Your task to perform on an android device: Search for razer blackwidow on ebay, select the first entry, and add it to the cart. Image 0: 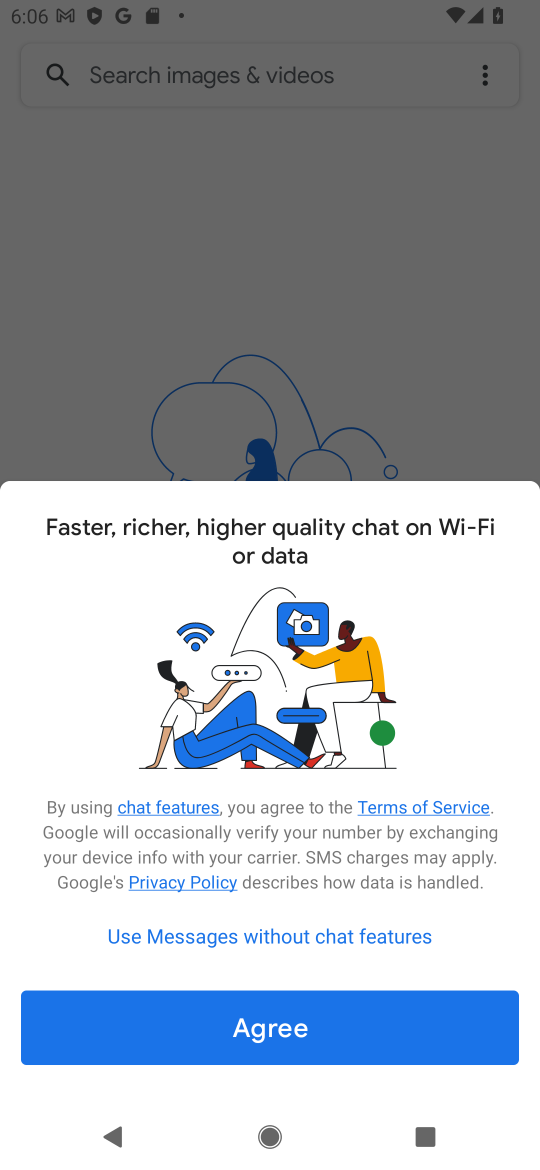
Step 0: press home button
Your task to perform on an android device: Search for razer blackwidow on ebay, select the first entry, and add it to the cart. Image 1: 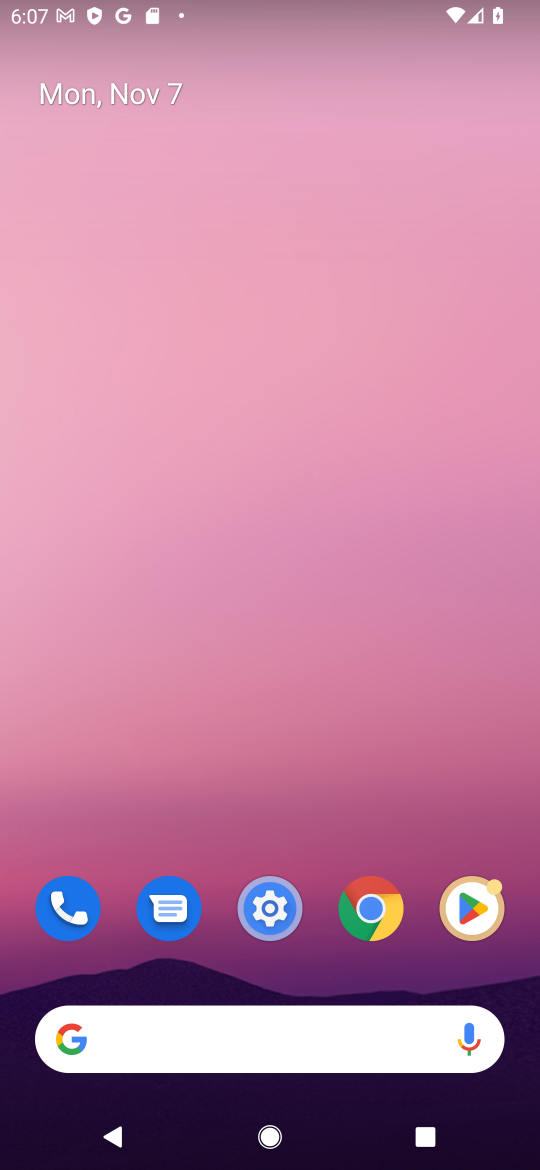
Step 1: click (309, 1061)
Your task to perform on an android device: Search for razer blackwidow on ebay, select the first entry, and add it to the cart. Image 2: 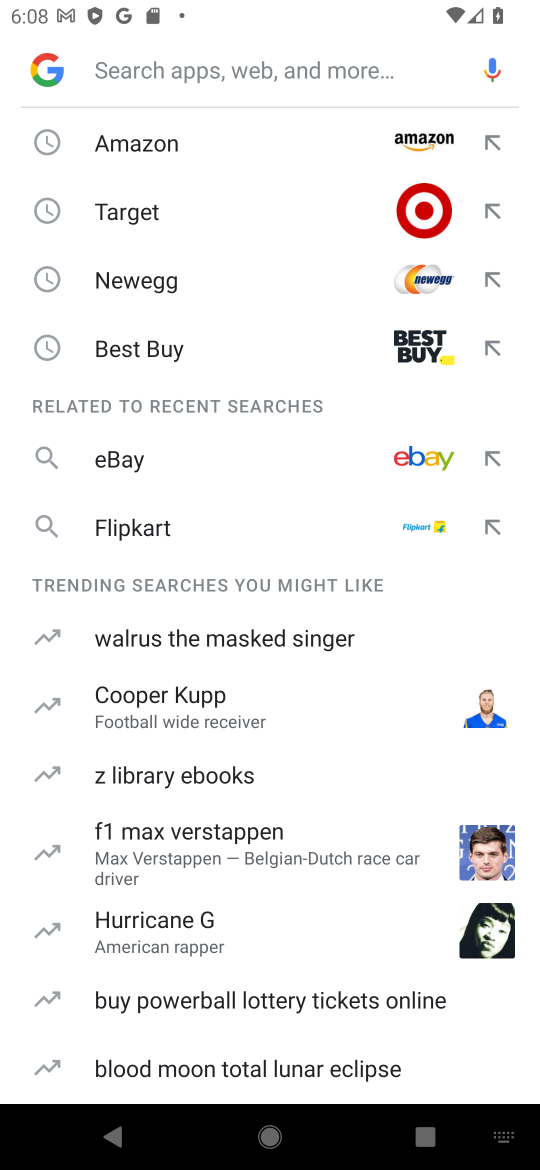
Step 2: click (143, 447)
Your task to perform on an android device: Search for razer blackwidow on ebay, select the first entry, and add it to the cart. Image 3: 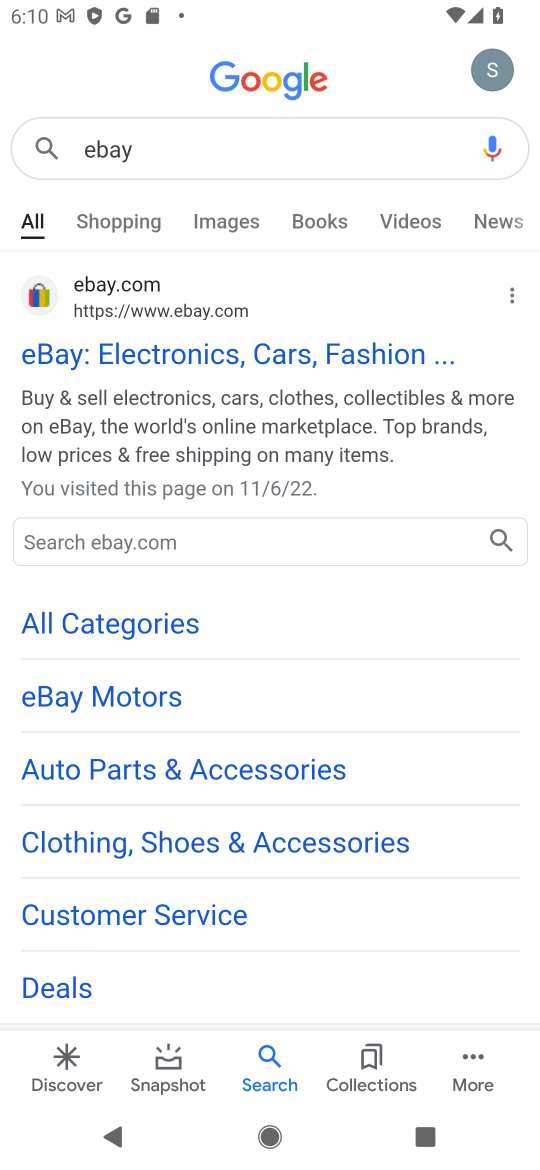
Step 3: click (49, 317)
Your task to perform on an android device: Search for razer blackwidow on ebay, select the first entry, and add it to the cart. Image 4: 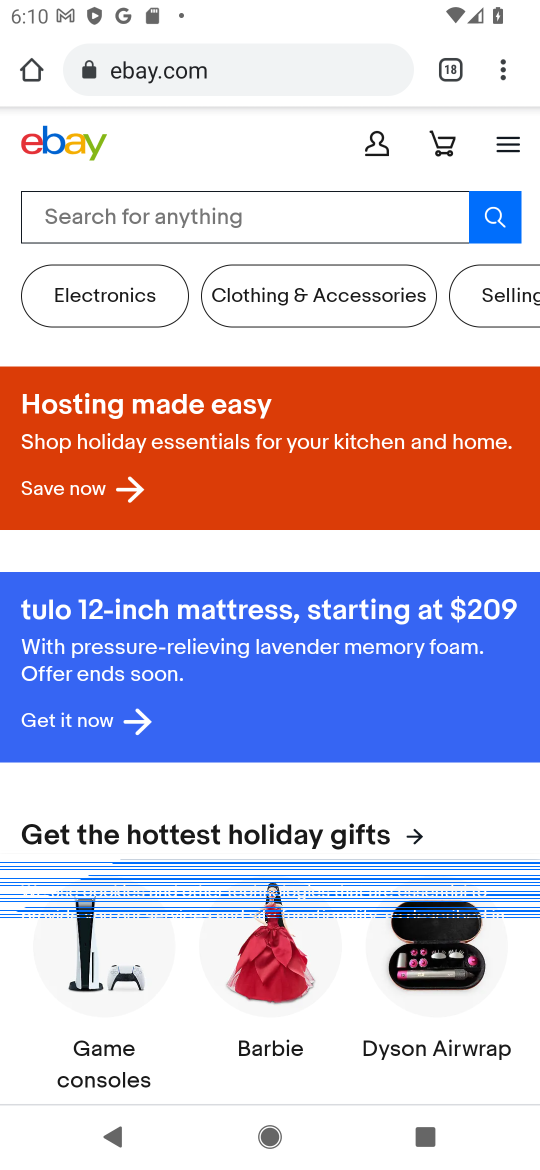
Step 4: task complete